Your task to perform on an android device: What's the weather going to be this weekend? Image 0: 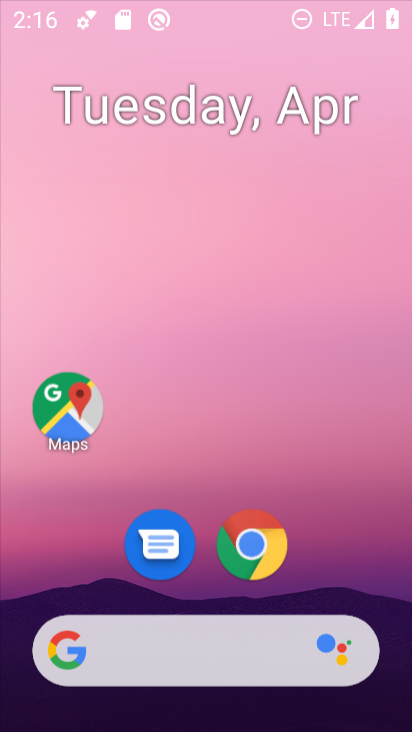
Step 0: click (265, 118)
Your task to perform on an android device: What's the weather going to be this weekend? Image 1: 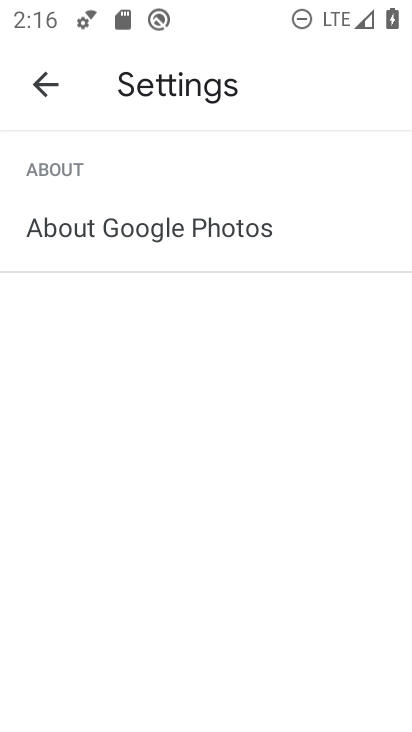
Step 1: press home button
Your task to perform on an android device: What's the weather going to be this weekend? Image 2: 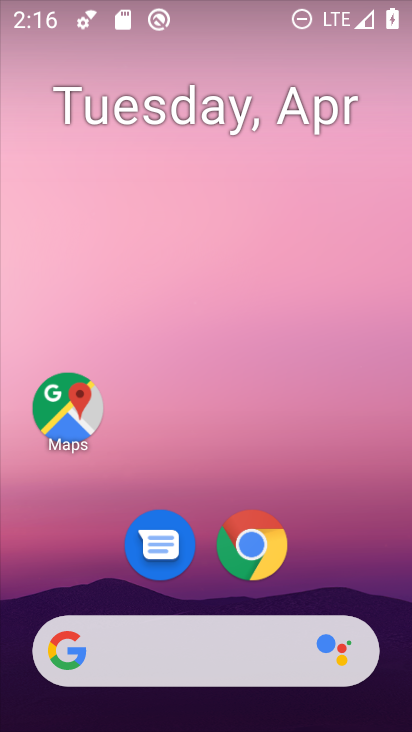
Step 2: drag from (400, 565) to (307, 135)
Your task to perform on an android device: What's the weather going to be this weekend? Image 3: 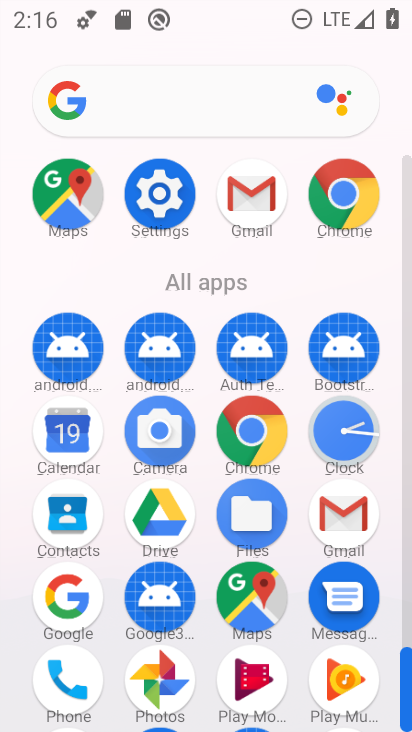
Step 3: click (74, 441)
Your task to perform on an android device: What's the weather going to be this weekend? Image 4: 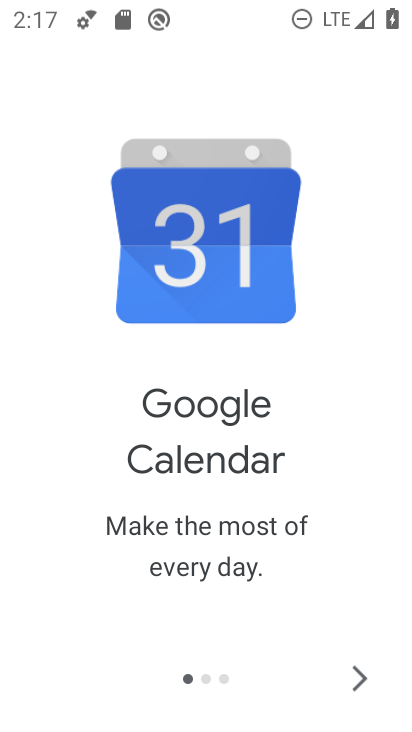
Step 4: click (370, 676)
Your task to perform on an android device: What's the weather going to be this weekend? Image 5: 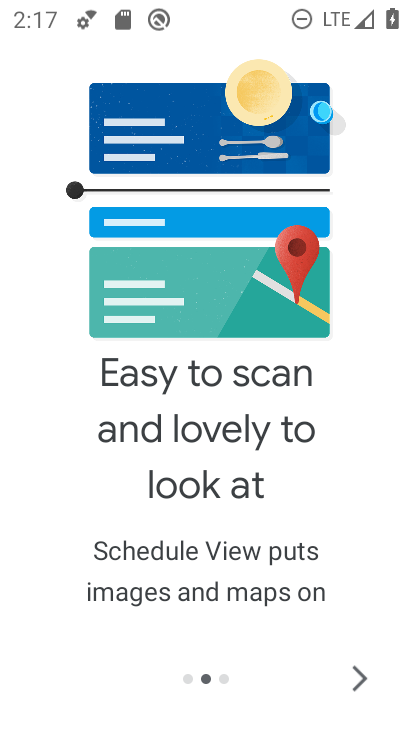
Step 5: click (370, 676)
Your task to perform on an android device: What's the weather going to be this weekend? Image 6: 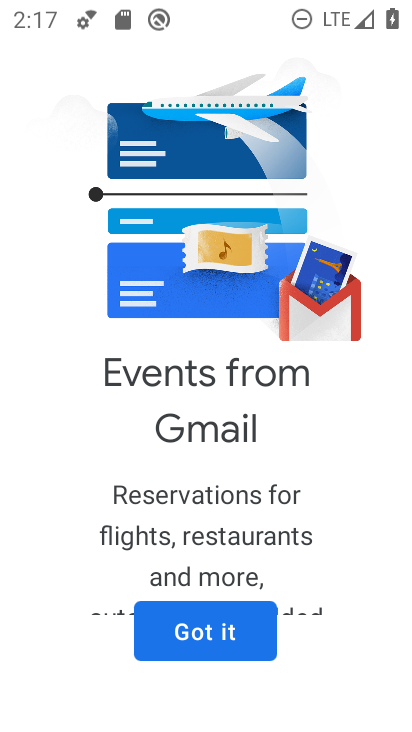
Step 6: click (229, 640)
Your task to perform on an android device: What's the weather going to be this weekend? Image 7: 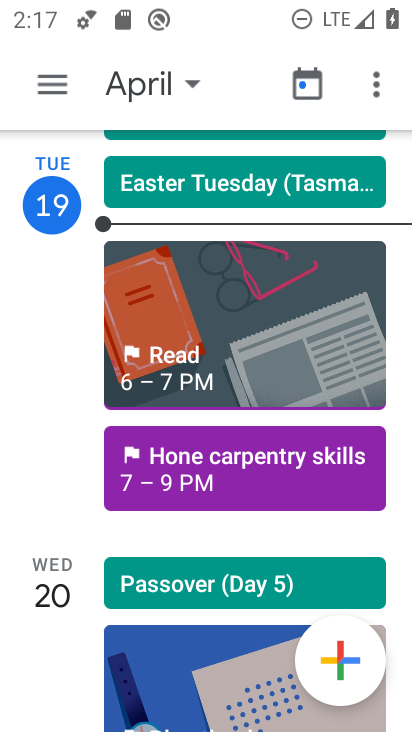
Step 7: press home button
Your task to perform on an android device: What's the weather going to be this weekend? Image 8: 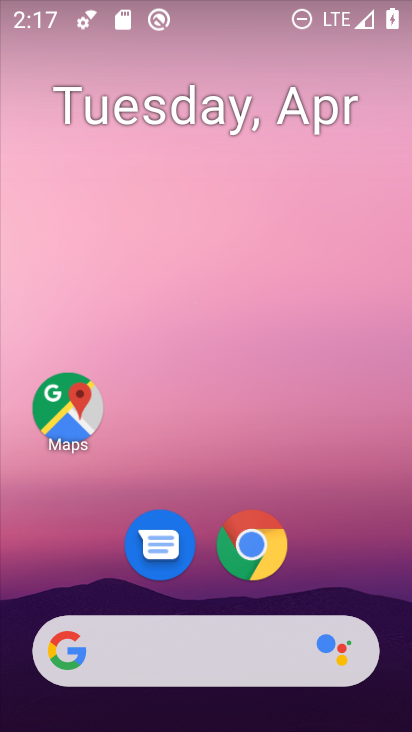
Step 8: click (266, 563)
Your task to perform on an android device: What's the weather going to be this weekend? Image 9: 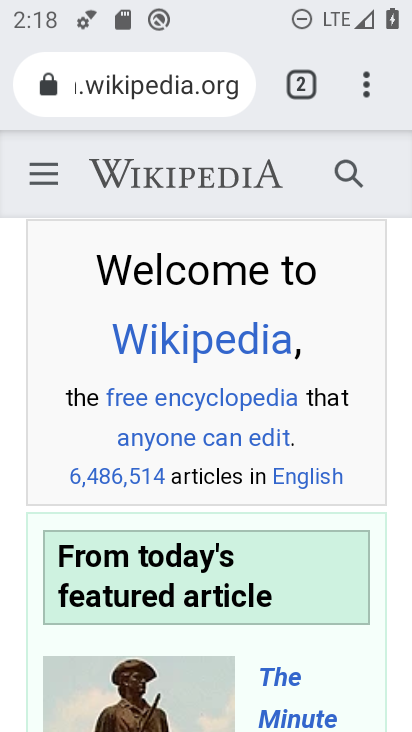
Step 9: click (192, 91)
Your task to perform on an android device: What's the weather going to be this weekend? Image 10: 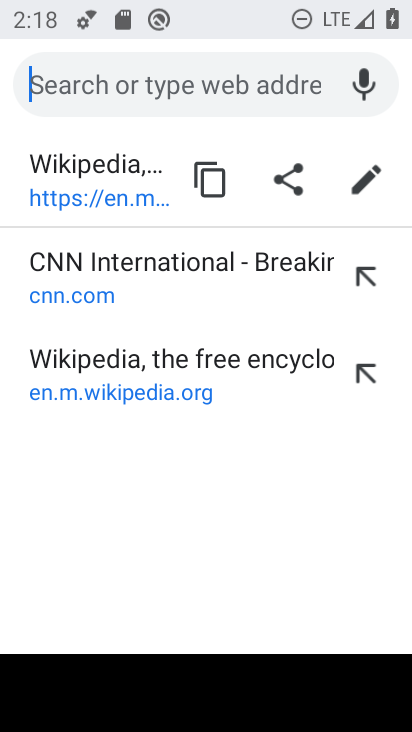
Step 10: type "What's the weather going to be this weekend?"
Your task to perform on an android device: What's the weather going to be this weekend? Image 11: 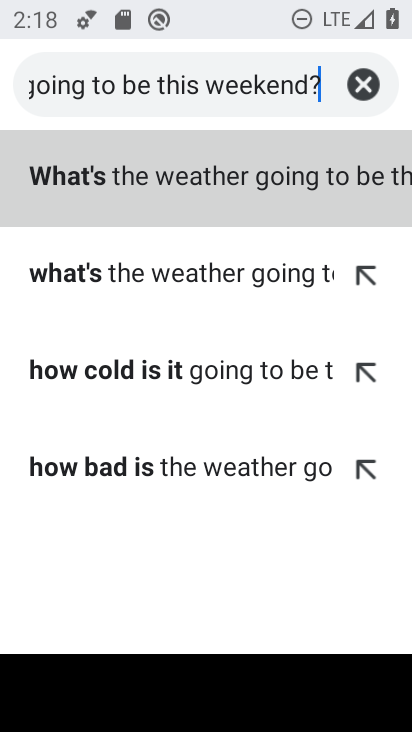
Step 11: click (375, 188)
Your task to perform on an android device: What's the weather going to be this weekend? Image 12: 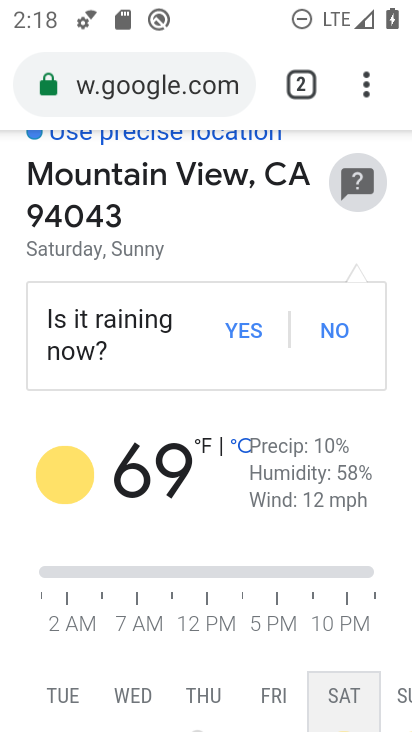
Step 12: task complete